Your task to perform on an android device: Open the stopwatch Image 0: 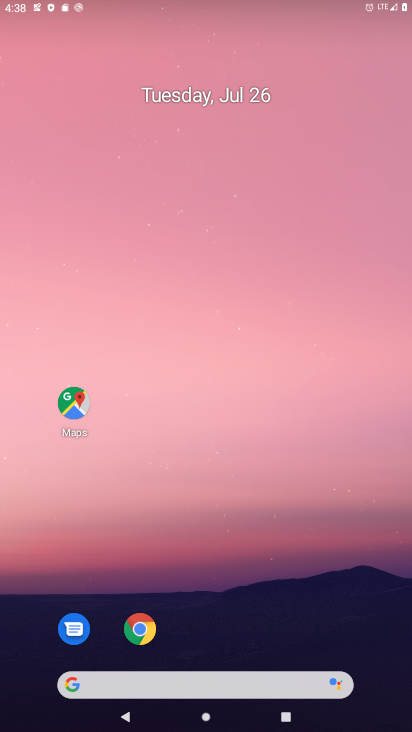
Step 0: drag from (220, 726) to (267, 224)
Your task to perform on an android device: Open the stopwatch Image 1: 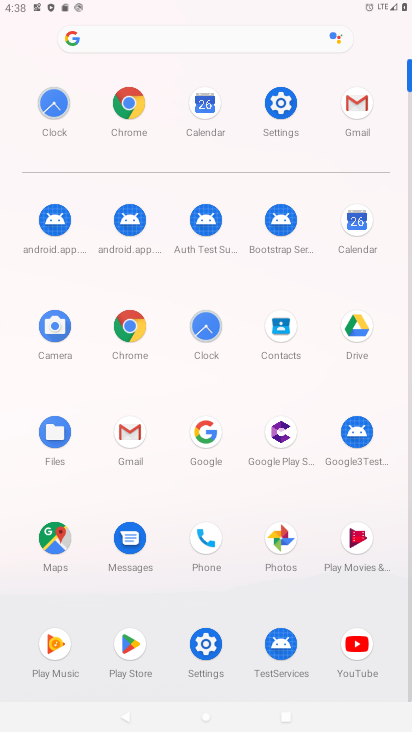
Step 1: click (205, 324)
Your task to perform on an android device: Open the stopwatch Image 2: 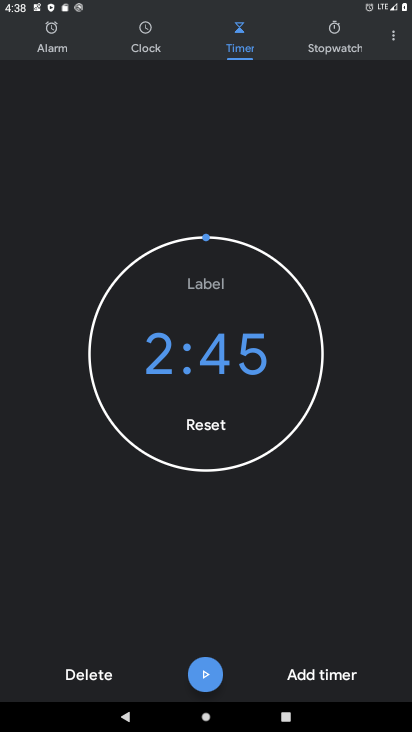
Step 2: click (332, 34)
Your task to perform on an android device: Open the stopwatch Image 3: 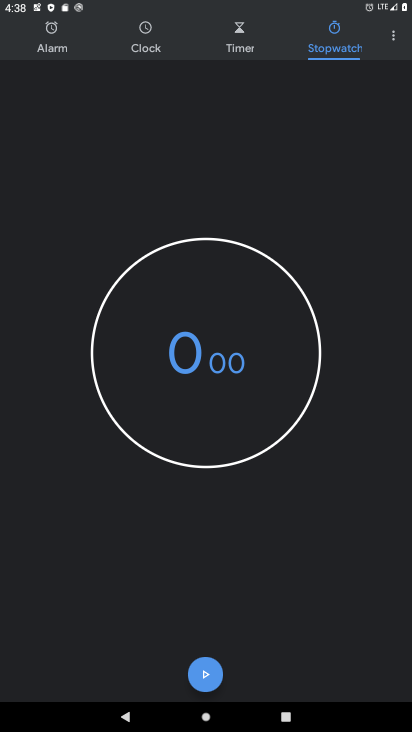
Step 3: task complete